Your task to perform on an android device: turn notification dots on Image 0: 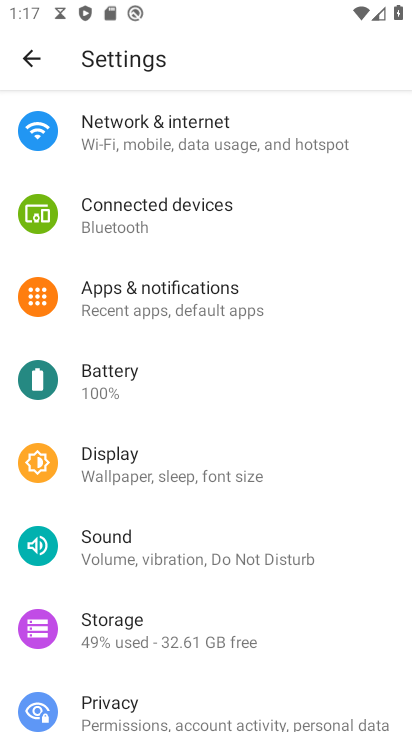
Step 0: click (255, 288)
Your task to perform on an android device: turn notification dots on Image 1: 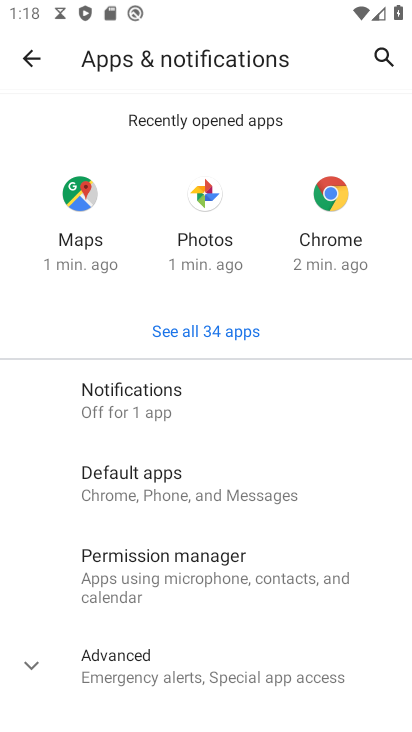
Step 1: click (187, 395)
Your task to perform on an android device: turn notification dots on Image 2: 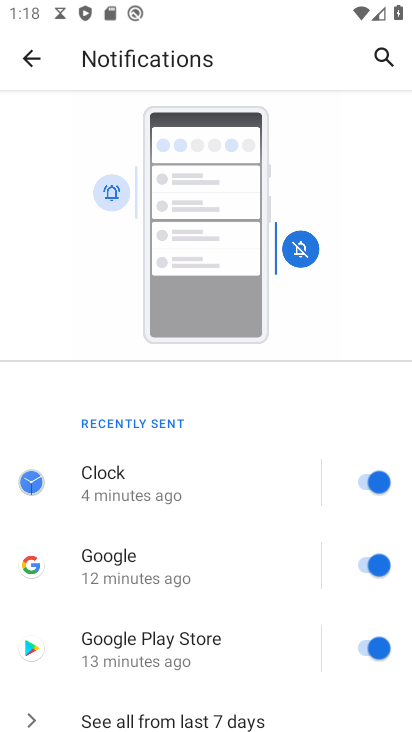
Step 2: drag from (224, 665) to (259, 251)
Your task to perform on an android device: turn notification dots on Image 3: 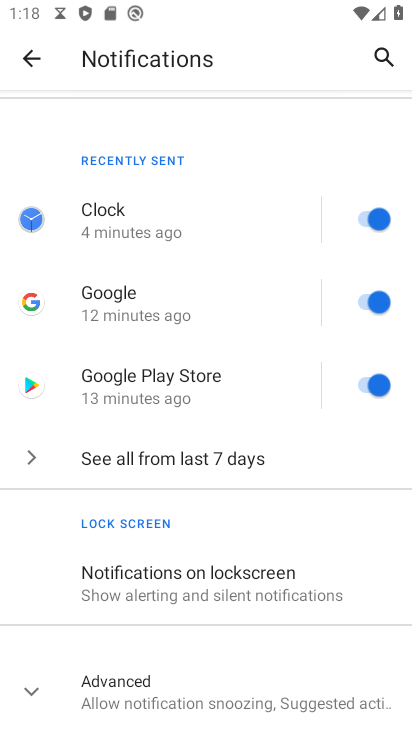
Step 3: click (38, 688)
Your task to perform on an android device: turn notification dots on Image 4: 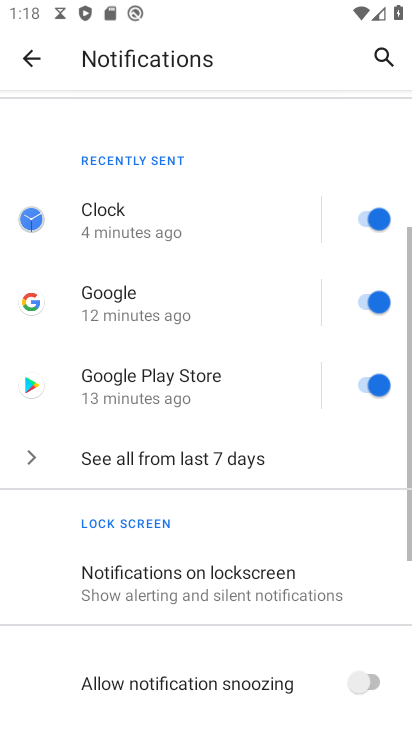
Step 4: task complete